Your task to perform on an android device: turn vacation reply on in the gmail app Image 0: 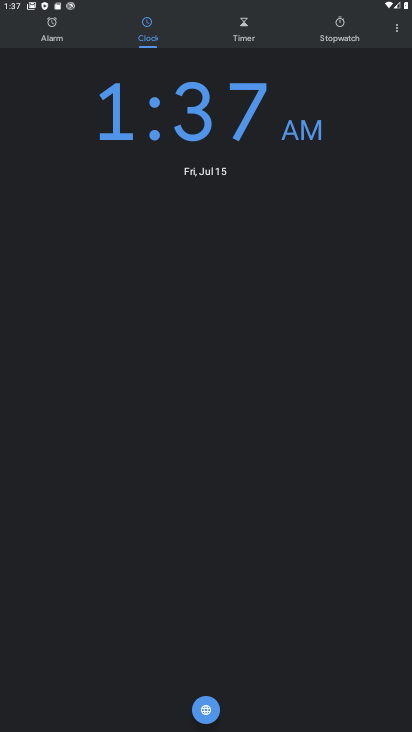
Step 0: press home button
Your task to perform on an android device: turn vacation reply on in the gmail app Image 1: 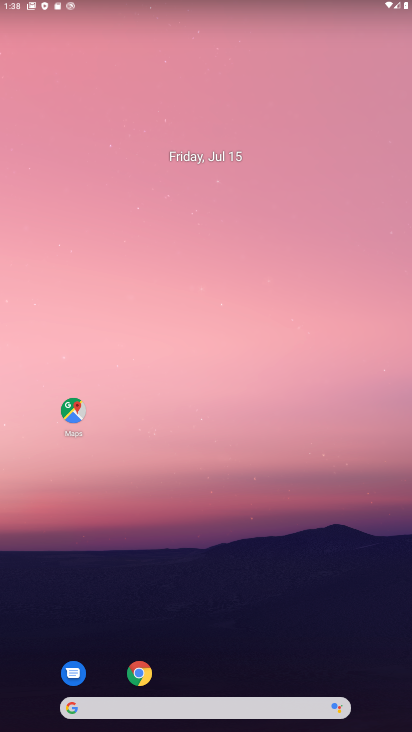
Step 1: drag from (378, 532) to (305, 168)
Your task to perform on an android device: turn vacation reply on in the gmail app Image 2: 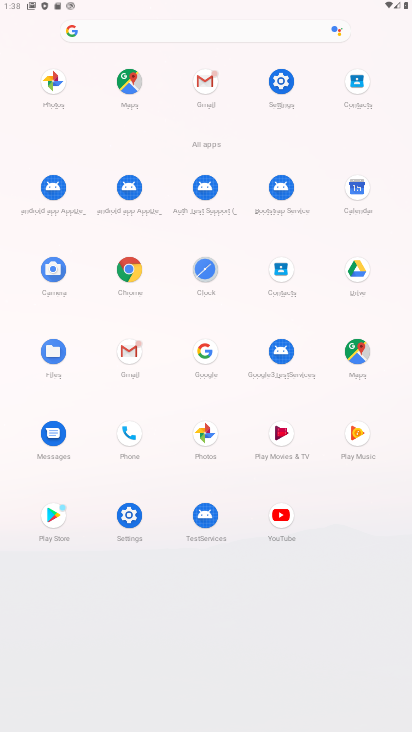
Step 2: click (140, 341)
Your task to perform on an android device: turn vacation reply on in the gmail app Image 3: 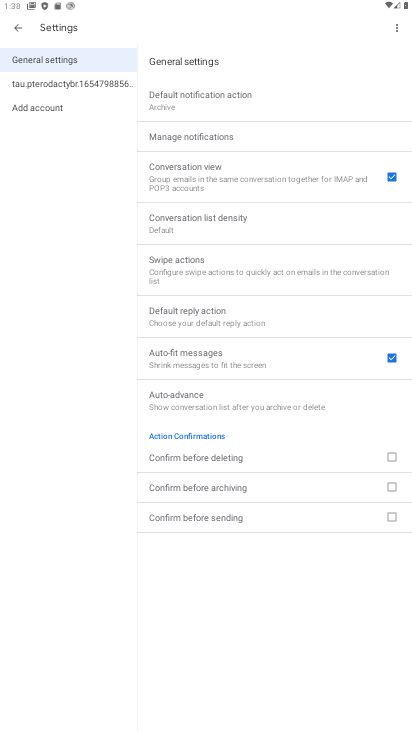
Step 3: click (62, 85)
Your task to perform on an android device: turn vacation reply on in the gmail app Image 4: 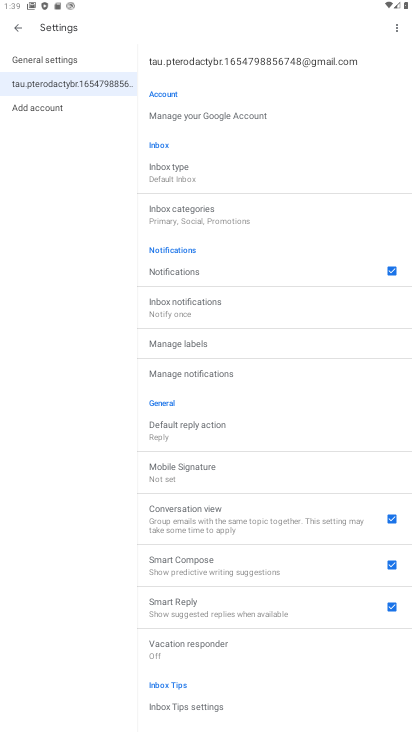
Step 4: click (180, 634)
Your task to perform on an android device: turn vacation reply on in the gmail app Image 5: 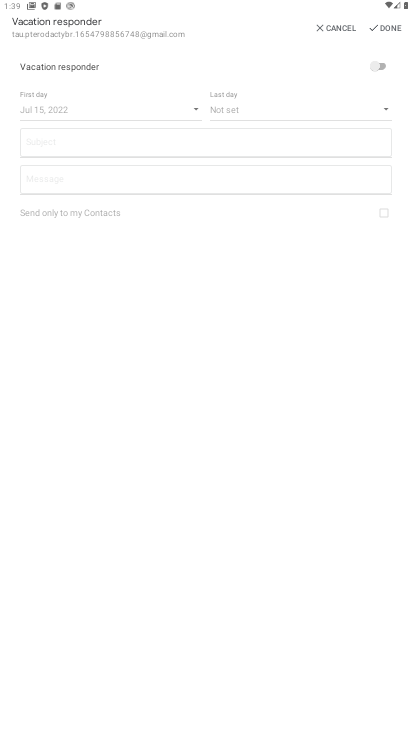
Step 5: click (376, 62)
Your task to perform on an android device: turn vacation reply on in the gmail app Image 6: 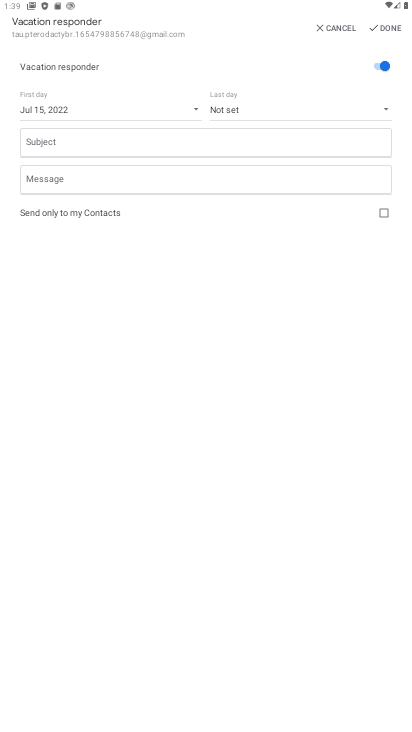
Step 6: task complete